Your task to perform on an android device: change the clock style Image 0: 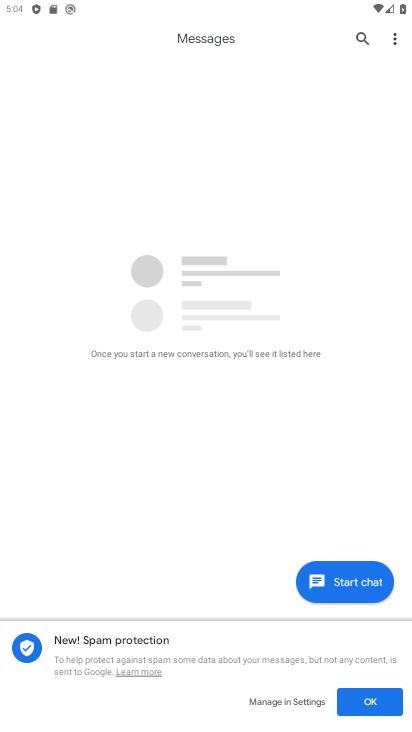
Step 0: press home button
Your task to perform on an android device: change the clock style Image 1: 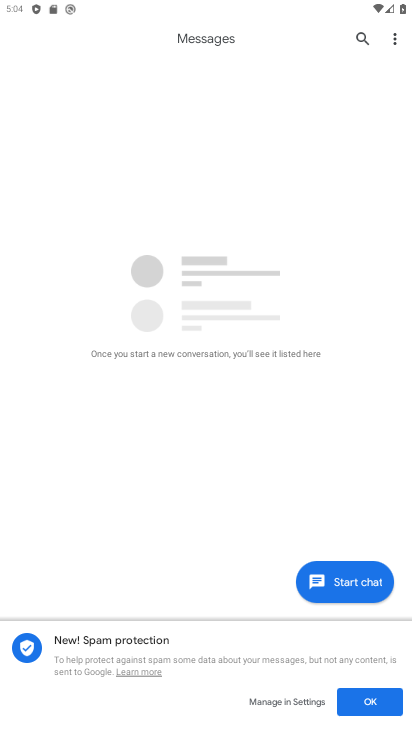
Step 1: press home button
Your task to perform on an android device: change the clock style Image 2: 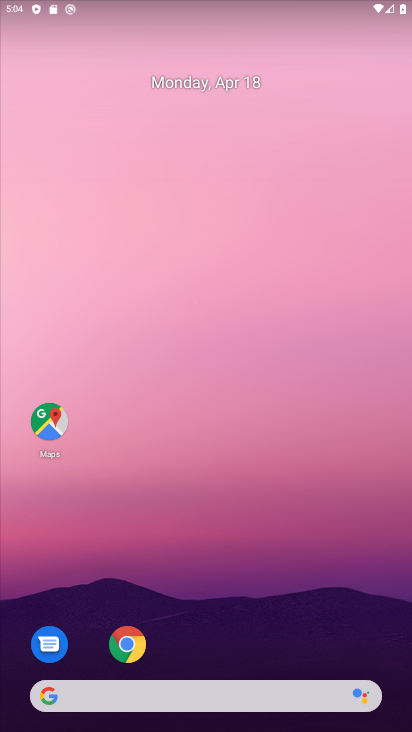
Step 2: drag from (218, 609) to (289, 66)
Your task to perform on an android device: change the clock style Image 3: 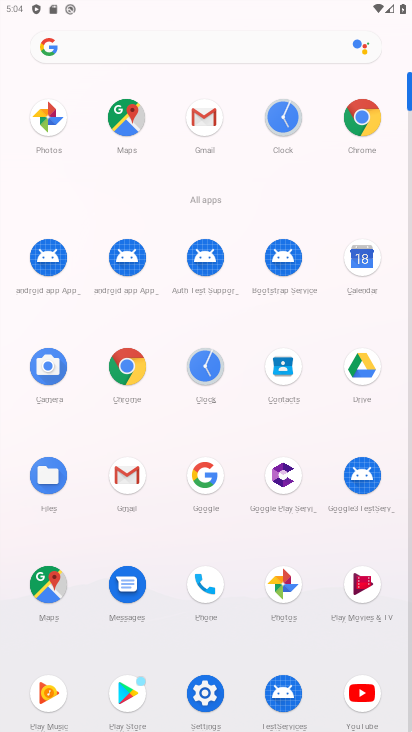
Step 3: click (204, 362)
Your task to perform on an android device: change the clock style Image 4: 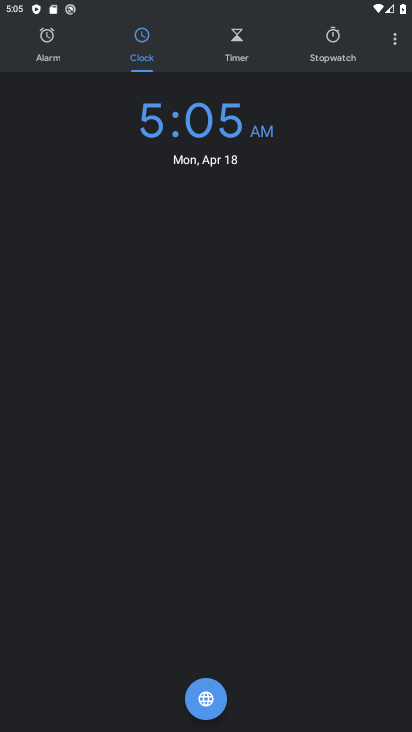
Step 4: click (392, 39)
Your task to perform on an android device: change the clock style Image 5: 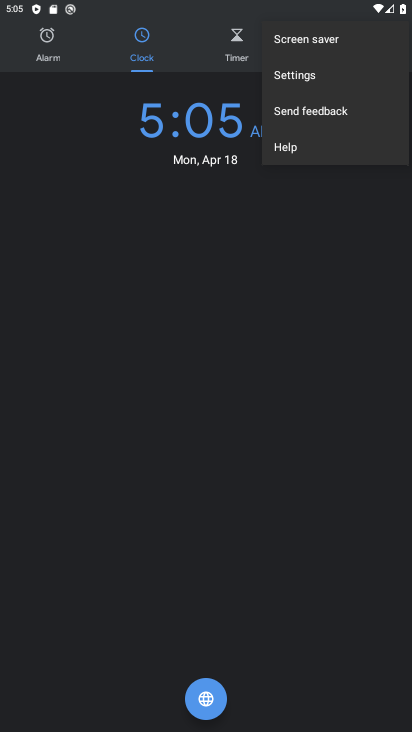
Step 5: click (312, 75)
Your task to perform on an android device: change the clock style Image 6: 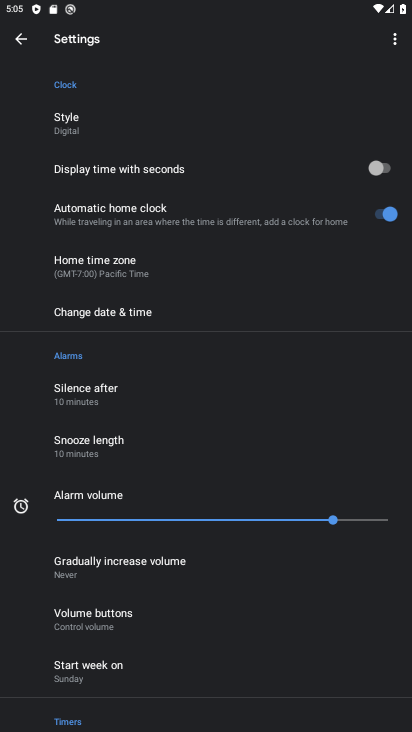
Step 6: click (97, 123)
Your task to perform on an android device: change the clock style Image 7: 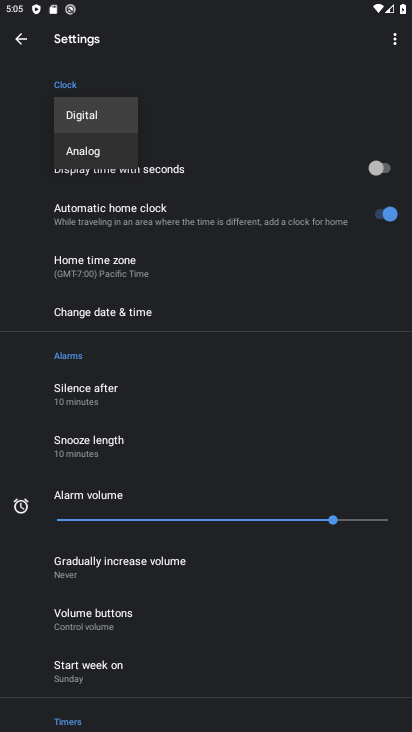
Step 7: click (110, 150)
Your task to perform on an android device: change the clock style Image 8: 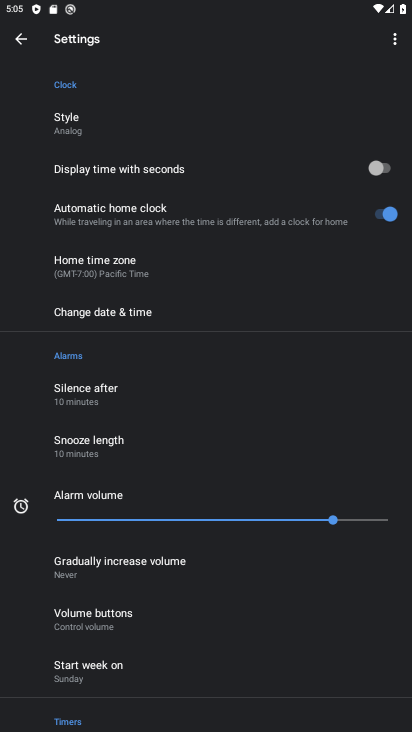
Step 8: task complete